Your task to perform on an android device: find snoozed emails in the gmail app Image 0: 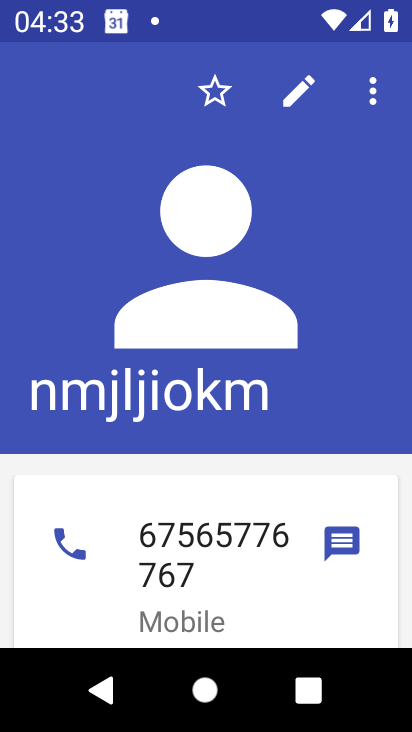
Step 0: press home button
Your task to perform on an android device: find snoozed emails in the gmail app Image 1: 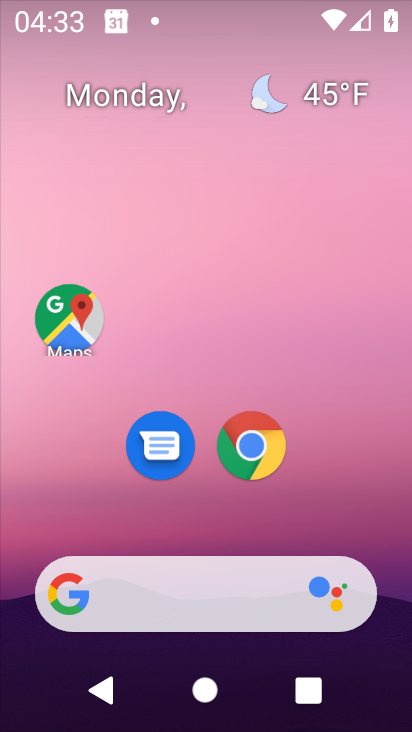
Step 1: drag from (243, 375) to (260, 105)
Your task to perform on an android device: find snoozed emails in the gmail app Image 2: 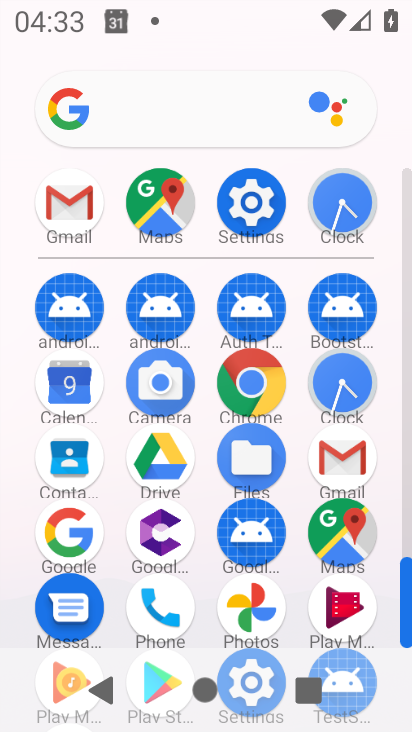
Step 2: click (328, 461)
Your task to perform on an android device: find snoozed emails in the gmail app Image 3: 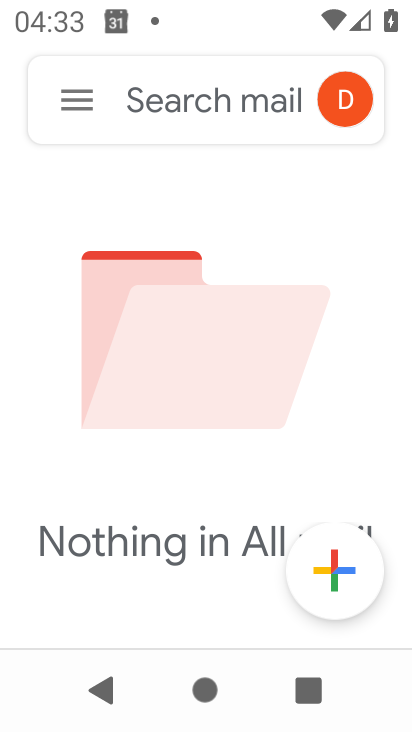
Step 3: click (70, 96)
Your task to perform on an android device: find snoozed emails in the gmail app Image 4: 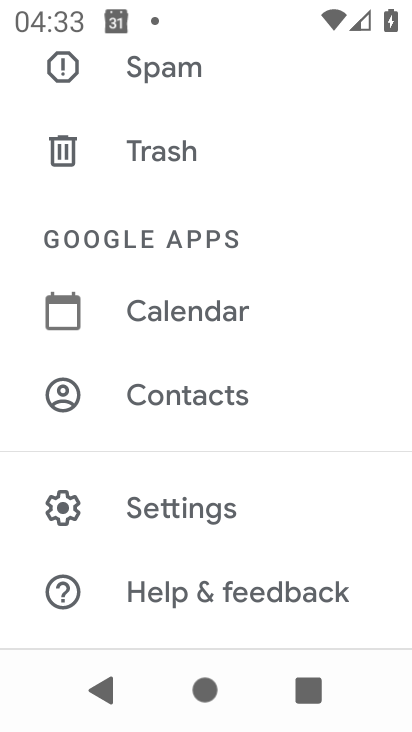
Step 4: drag from (232, 109) to (317, 536)
Your task to perform on an android device: find snoozed emails in the gmail app Image 5: 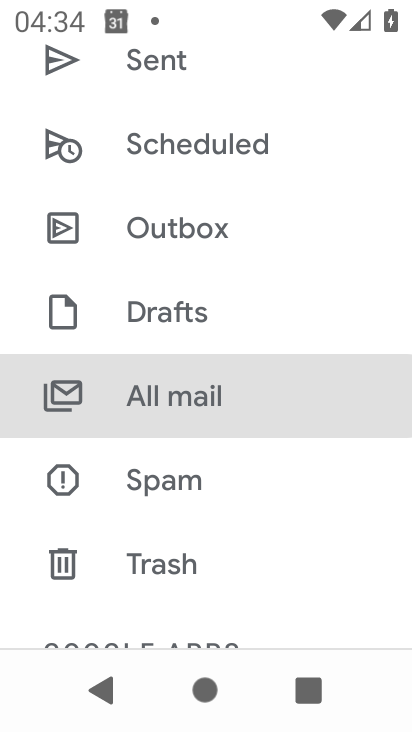
Step 5: drag from (326, 166) to (302, 527)
Your task to perform on an android device: find snoozed emails in the gmail app Image 6: 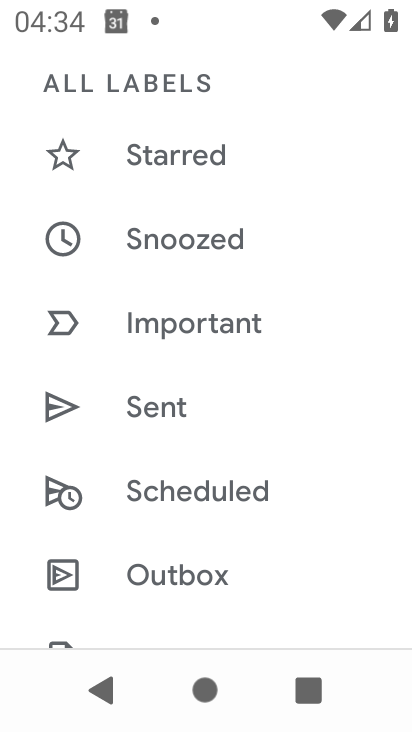
Step 6: click (238, 228)
Your task to perform on an android device: find snoozed emails in the gmail app Image 7: 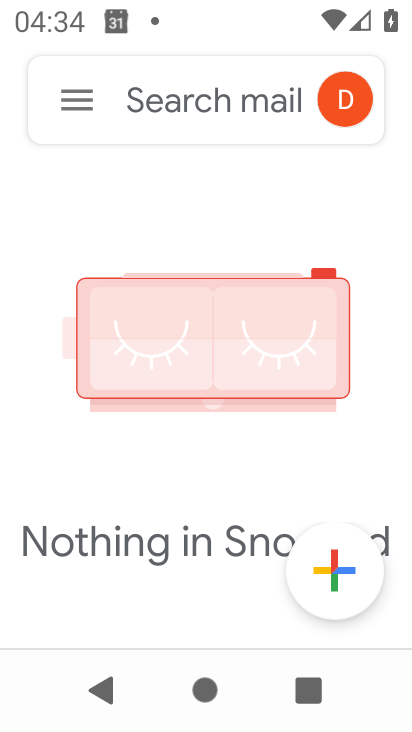
Step 7: task complete